Your task to perform on an android device: choose inbox layout in the gmail app Image 0: 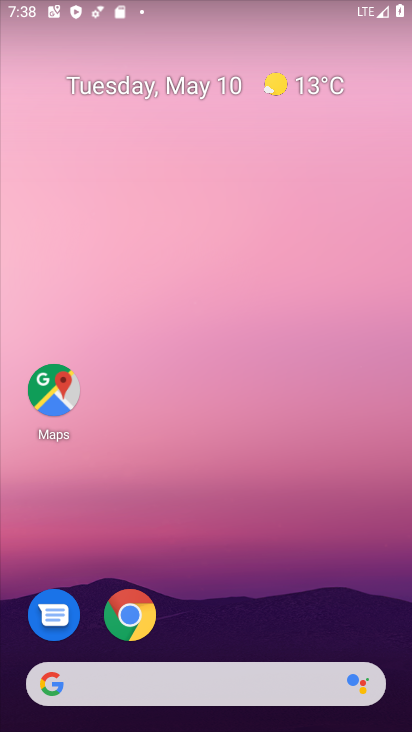
Step 0: drag from (233, 609) to (236, 26)
Your task to perform on an android device: choose inbox layout in the gmail app Image 1: 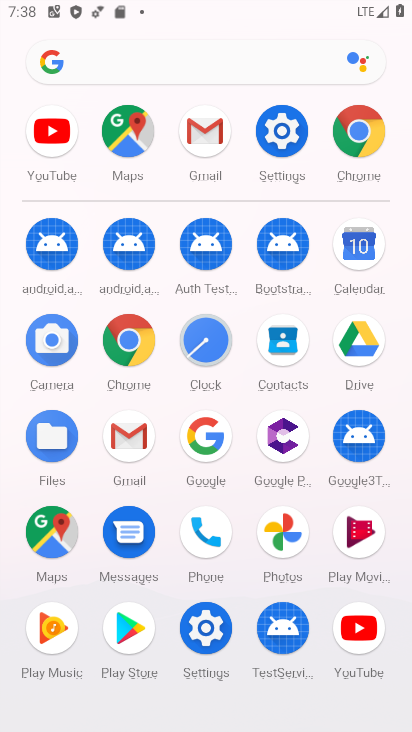
Step 1: click (203, 133)
Your task to perform on an android device: choose inbox layout in the gmail app Image 2: 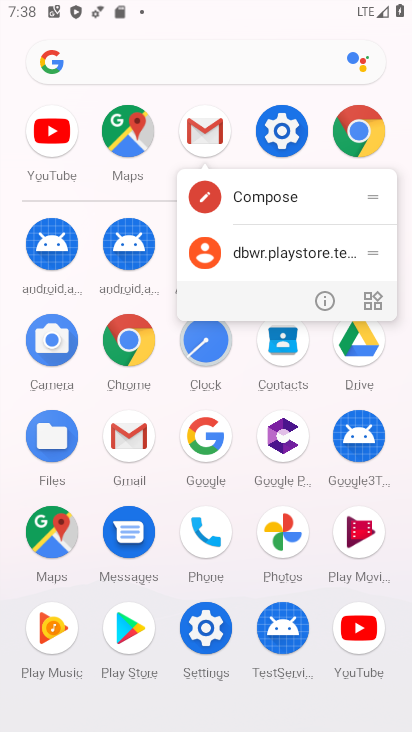
Step 2: click (203, 133)
Your task to perform on an android device: choose inbox layout in the gmail app Image 3: 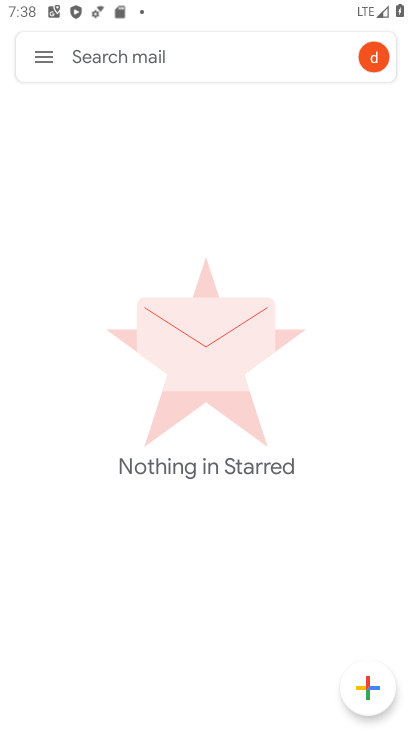
Step 3: click (55, 53)
Your task to perform on an android device: choose inbox layout in the gmail app Image 4: 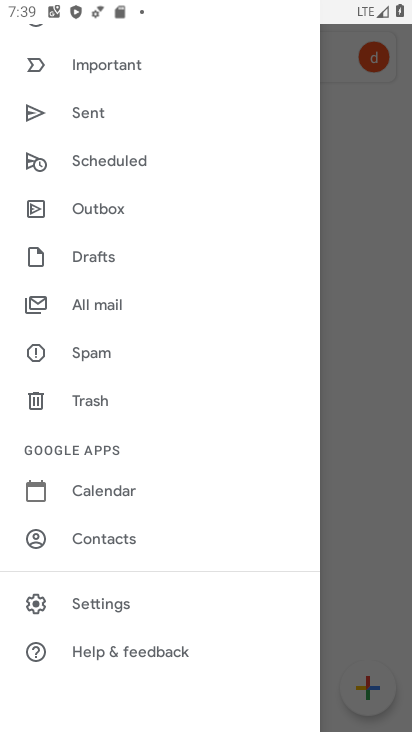
Step 4: click (70, 601)
Your task to perform on an android device: choose inbox layout in the gmail app Image 5: 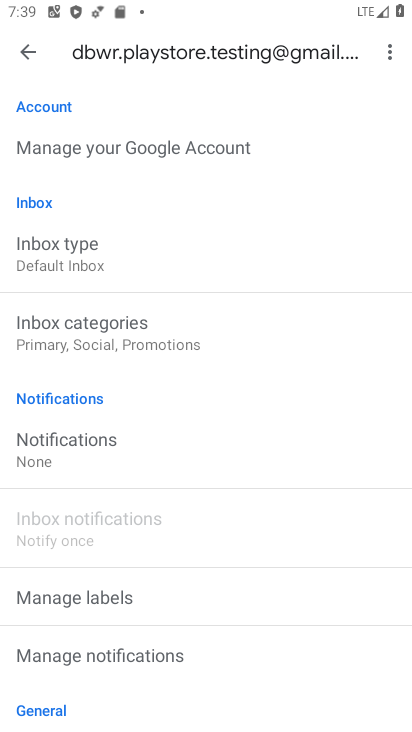
Step 5: click (56, 259)
Your task to perform on an android device: choose inbox layout in the gmail app Image 6: 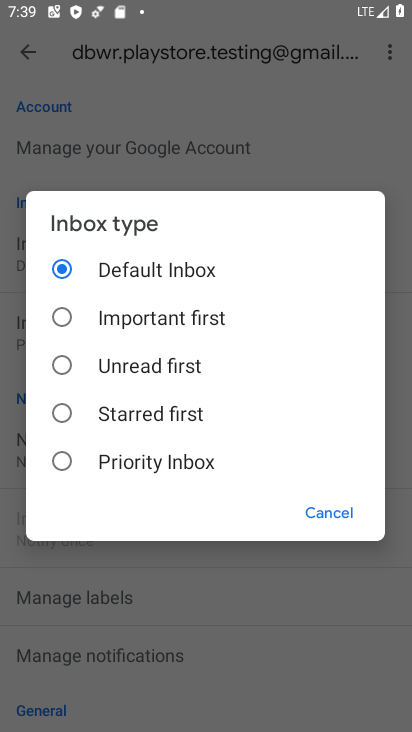
Step 6: click (111, 372)
Your task to perform on an android device: choose inbox layout in the gmail app Image 7: 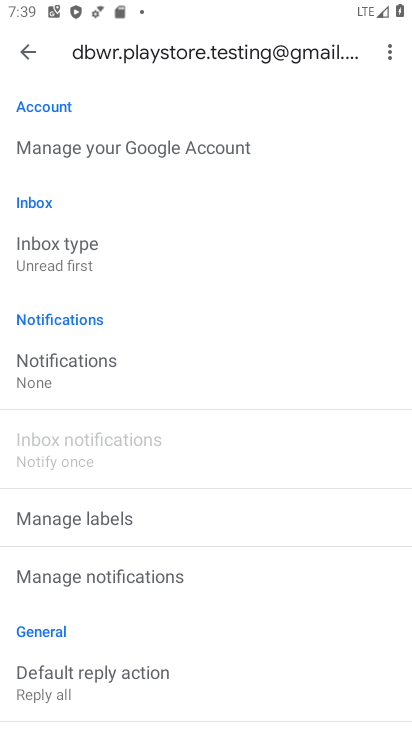
Step 7: task complete